Your task to perform on an android device: Search for Italian restaurants on Maps Image 0: 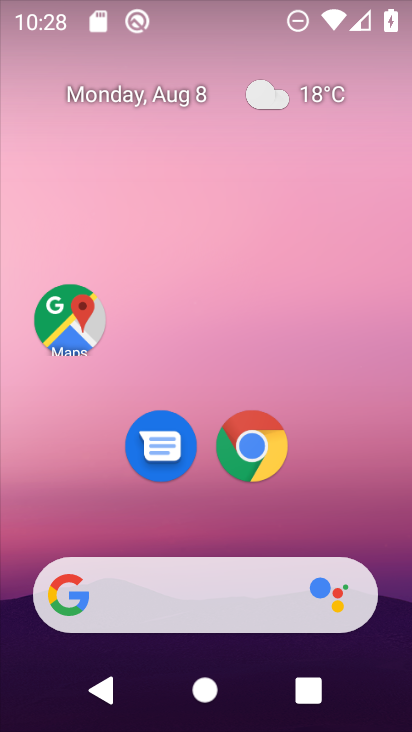
Step 0: click (75, 316)
Your task to perform on an android device: Search for Italian restaurants on Maps Image 1: 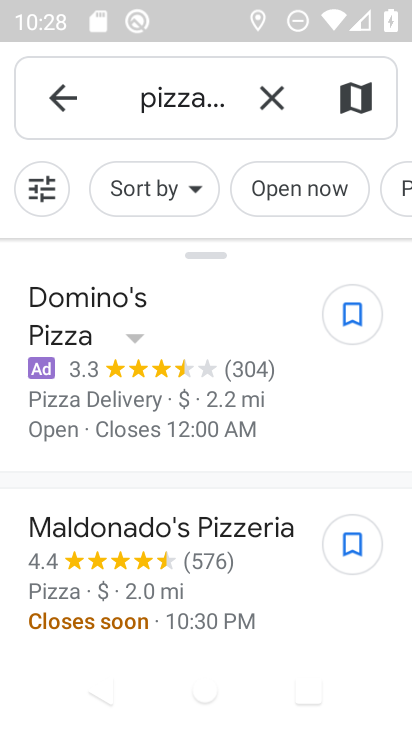
Step 1: click (265, 98)
Your task to perform on an android device: Search for Italian restaurants on Maps Image 2: 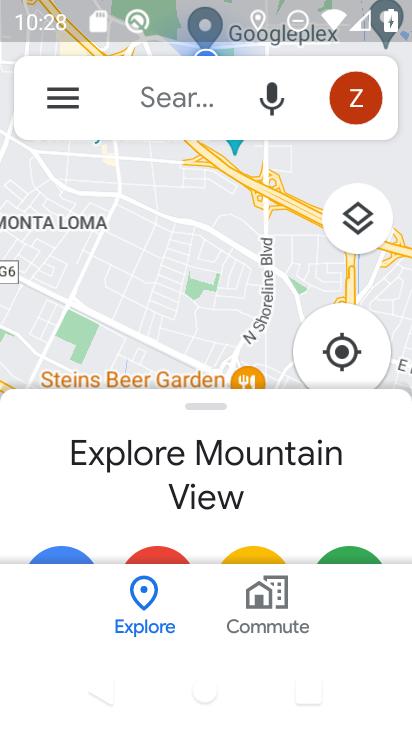
Step 2: click (163, 103)
Your task to perform on an android device: Search for Italian restaurants on Maps Image 3: 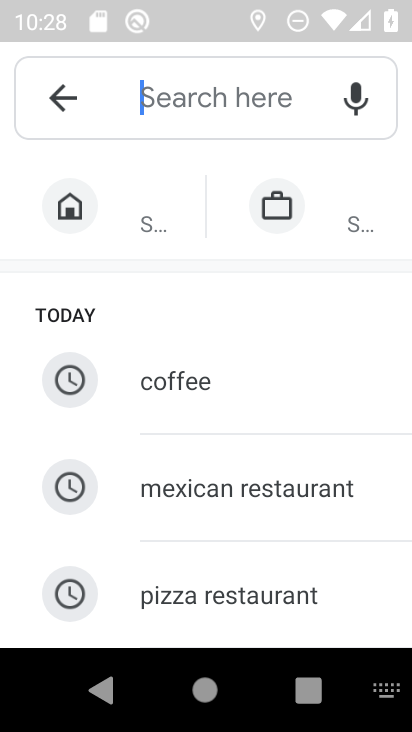
Step 3: type "italian restaurants"
Your task to perform on an android device: Search for Italian restaurants on Maps Image 4: 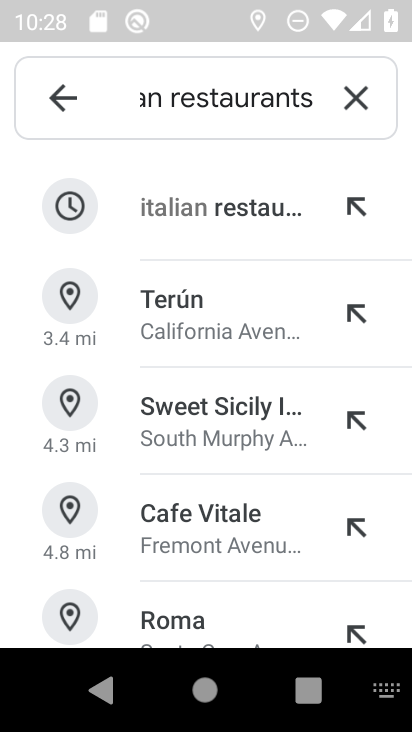
Step 4: click (193, 229)
Your task to perform on an android device: Search for Italian restaurants on Maps Image 5: 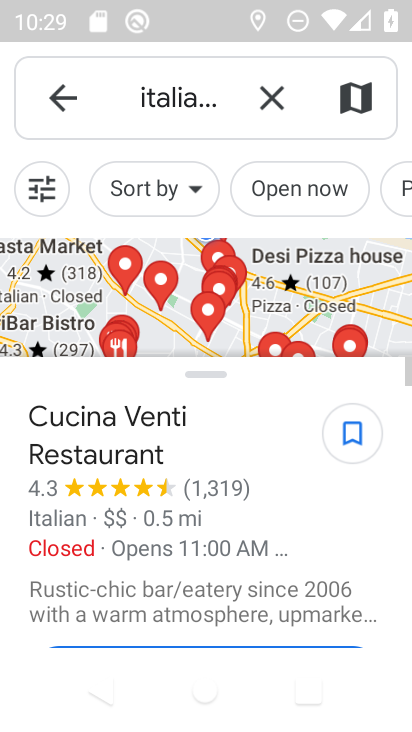
Step 5: task complete